Your task to perform on an android device: add a contact in the contacts app Image 0: 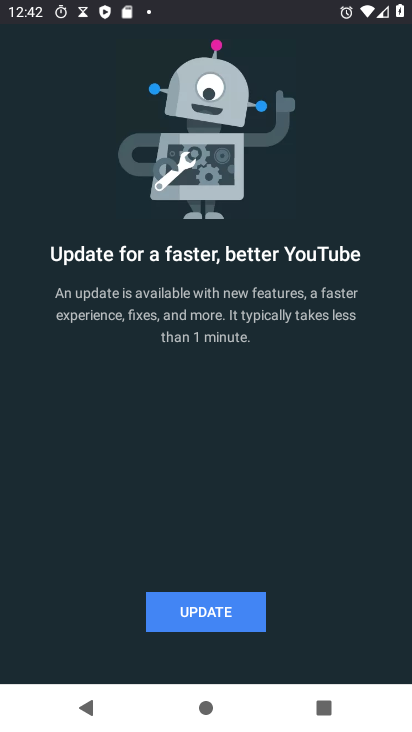
Step 0: press back button
Your task to perform on an android device: add a contact in the contacts app Image 1: 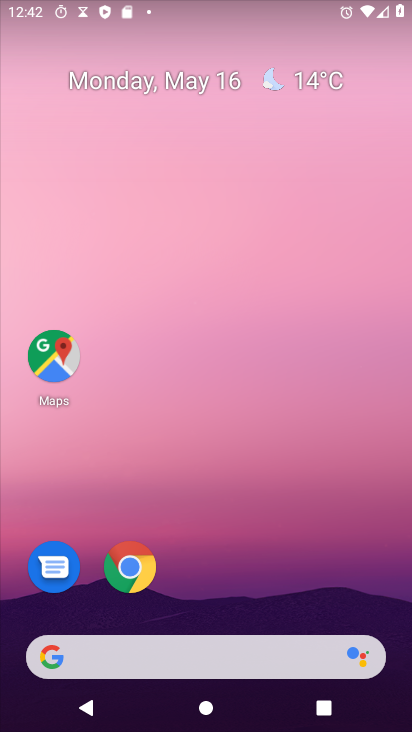
Step 1: drag from (268, 600) to (257, 102)
Your task to perform on an android device: add a contact in the contacts app Image 2: 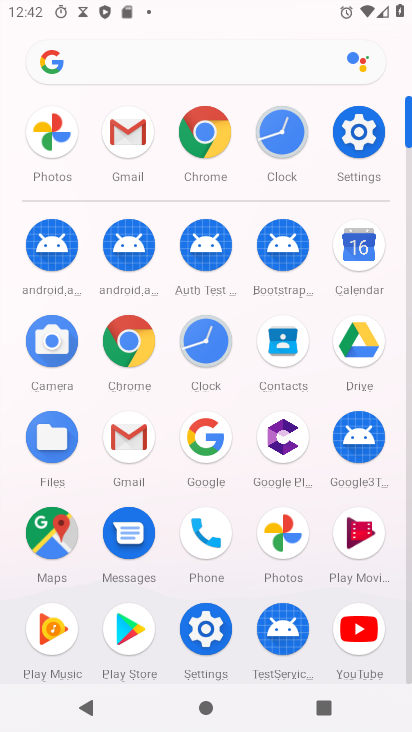
Step 2: click (288, 331)
Your task to perform on an android device: add a contact in the contacts app Image 3: 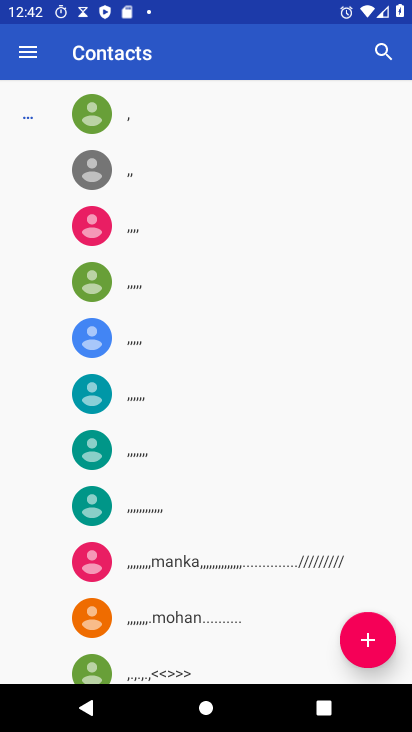
Step 3: click (370, 652)
Your task to perform on an android device: add a contact in the contacts app Image 4: 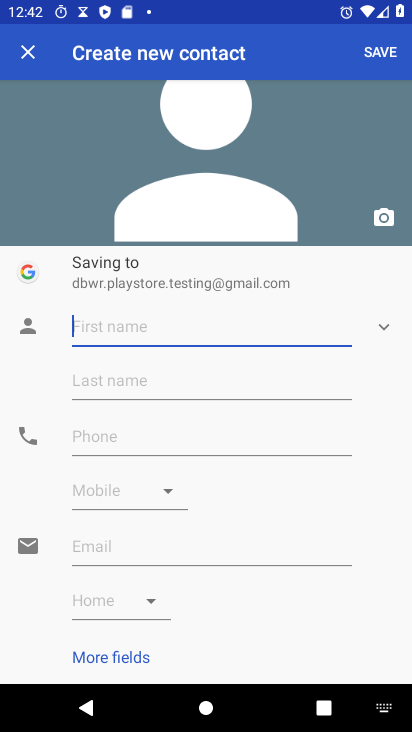
Step 4: type "asdfghjkl"
Your task to perform on an android device: add a contact in the contacts app Image 5: 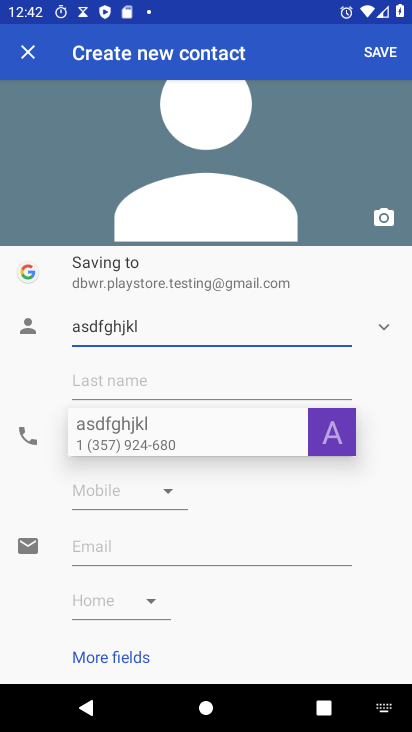
Step 5: type "k"
Your task to perform on an android device: add a contact in the contacts app Image 6: 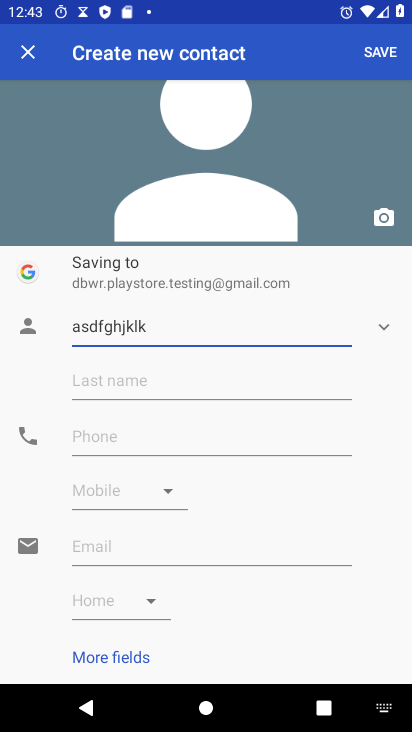
Step 6: click (79, 416)
Your task to perform on an android device: add a contact in the contacts app Image 7: 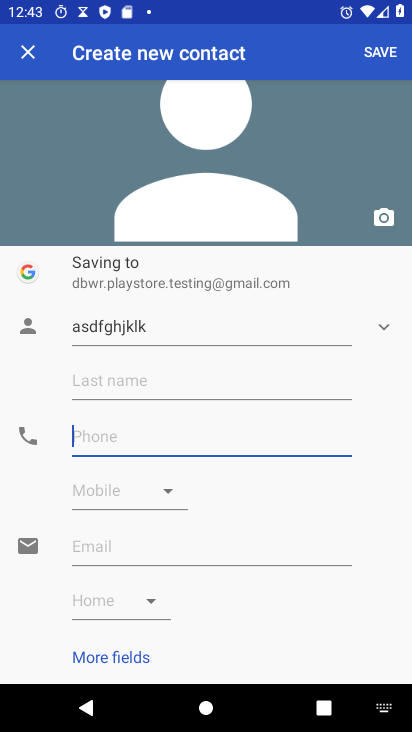
Step 7: type "9878987898"
Your task to perform on an android device: add a contact in the contacts app Image 8: 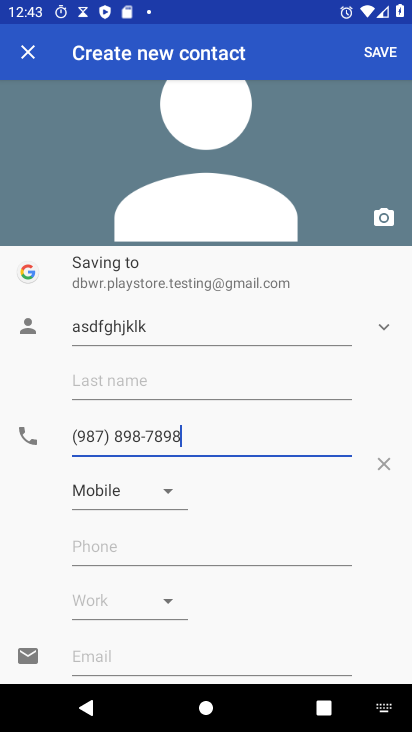
Step 8: click (392, 51)
Your task to perform on an android device: add a contact in the contacts app Image 9: 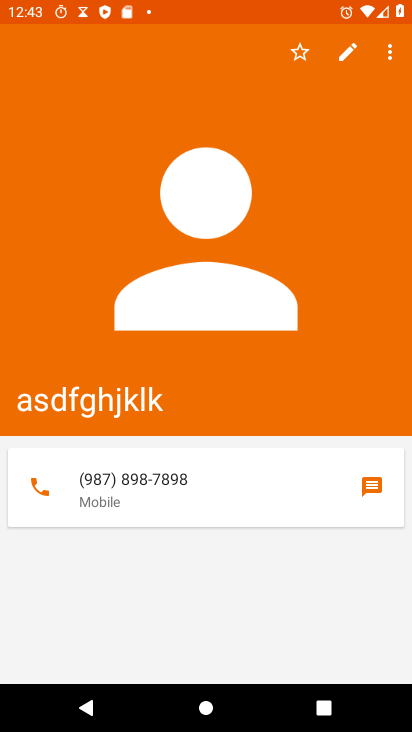
Step 9: task complete